Your task to perform on an android device: What is the news today? Image 0: 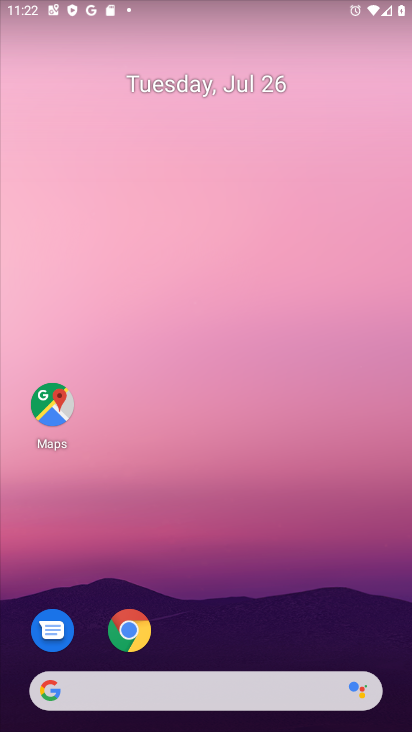
Step 0: click (240, 695)
Your task to perform on an android device: What is the news today? Image 1: 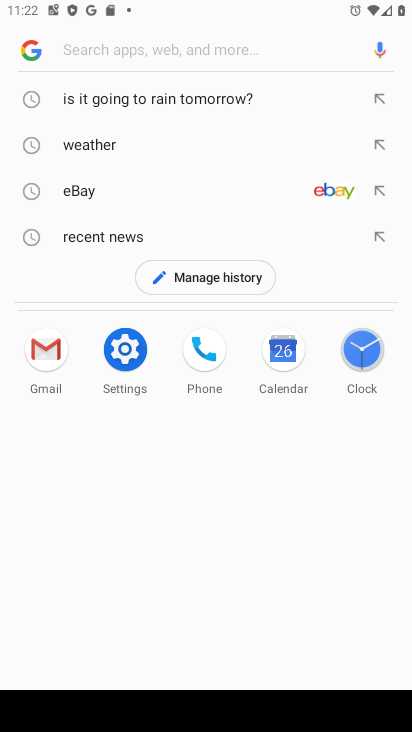
Step 1: type "news todays"
Your task to perform on an android device: What is the news today? Image 2: 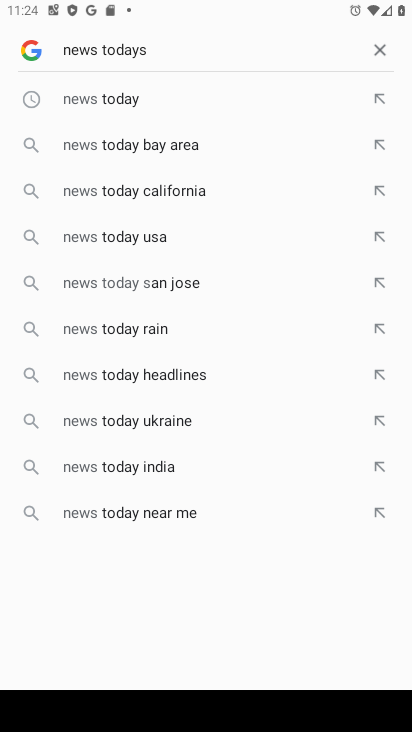
Step 2: click (148, 89)
Your task to perform on an android device: What is the news today? Image 3: 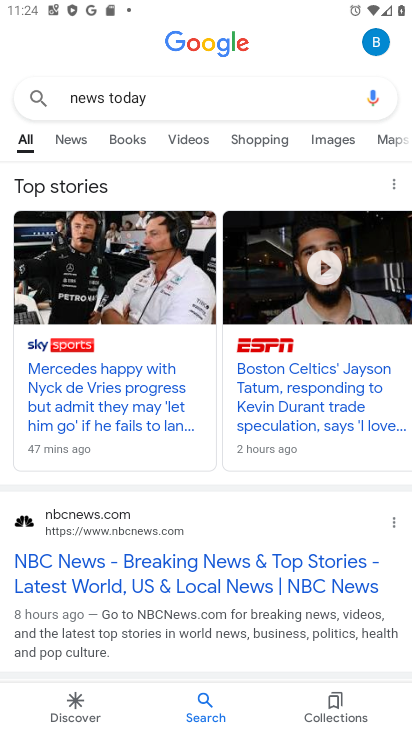
Step 3: task complete